Your task to perform on an android device: see sites visited before in the chrome app Image 0: 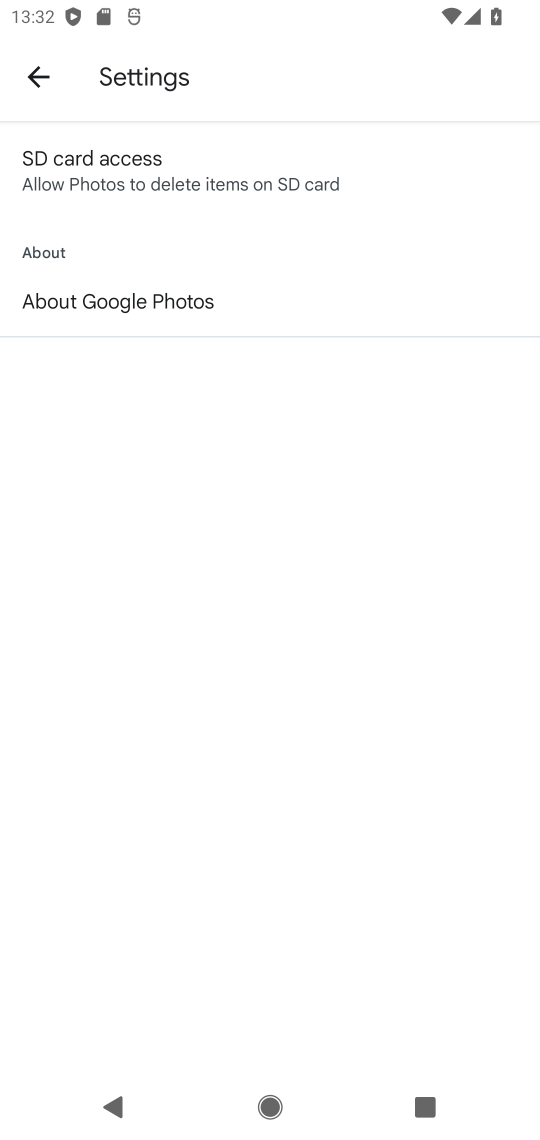
Step 0: press home button
Your task to perform on an android device: see sites visited before in the chrome app Image 1: 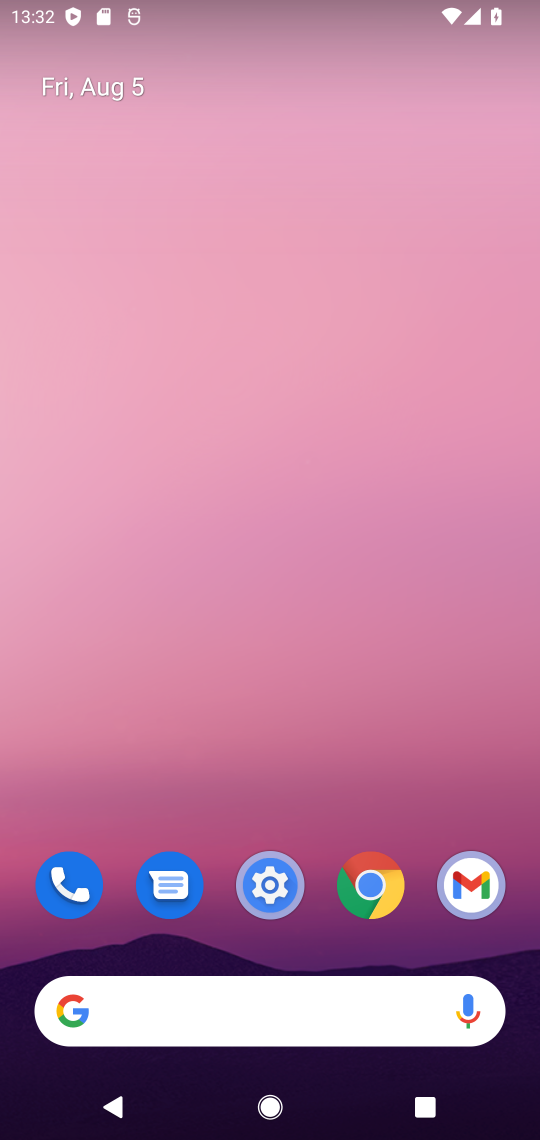
Step 1: click (363, 891)
Your task to perform on an android device: see sites visited before in the chrome app Image 2: 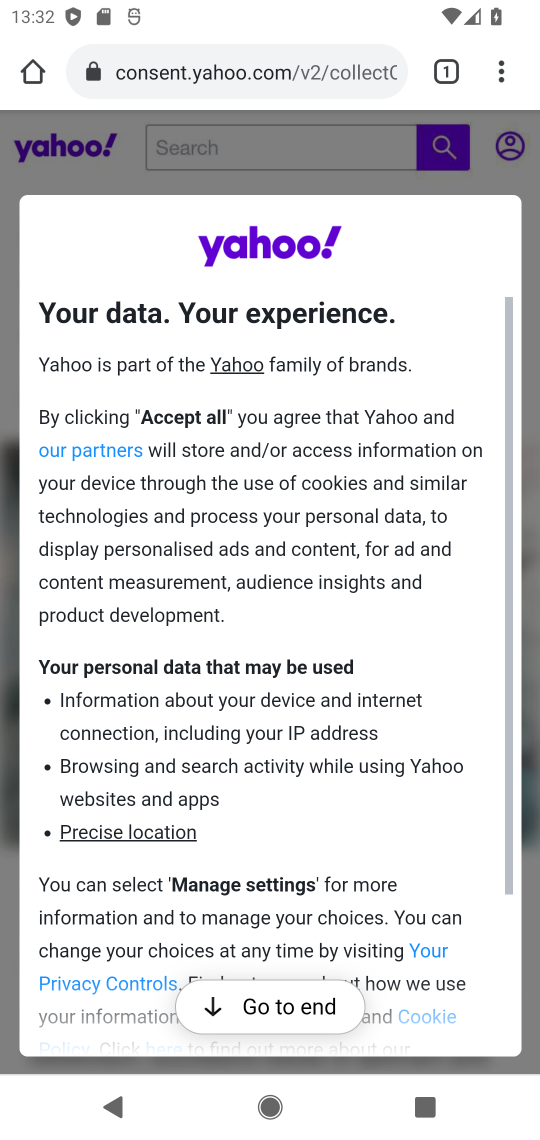
Step 2: click (500, 79)
Your task to perform on an android device: see sites visited before in the chrome app Image 3: 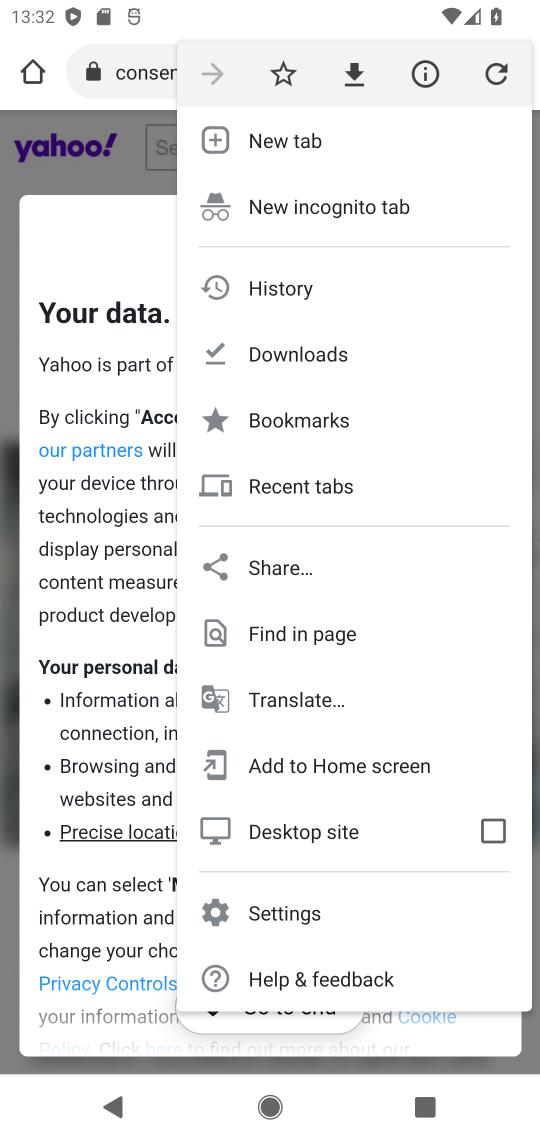
Step 3: click (280, 288)
Your task to perform on an android device: see sites visited before in the chrome app Image 4: 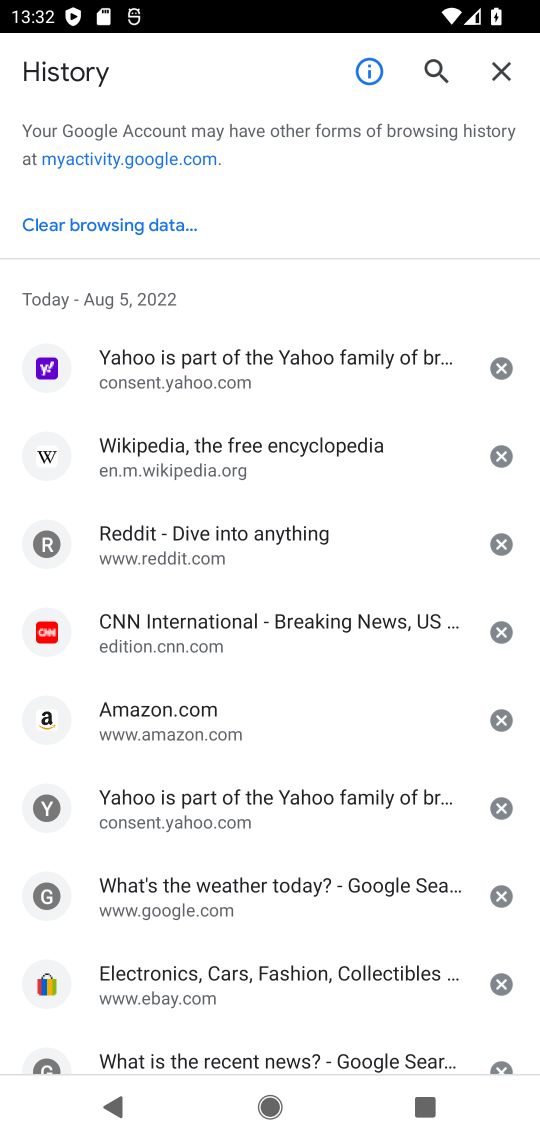
Step 4: task complete